Your task to perform on an android device: open sync settings in chrome Image 0: 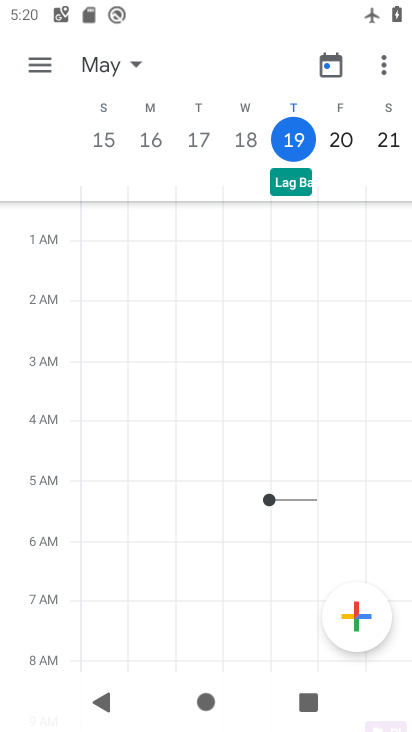
Step 0: press home button
Your task to perform on an android device: open sync settings in chrome Image 1: 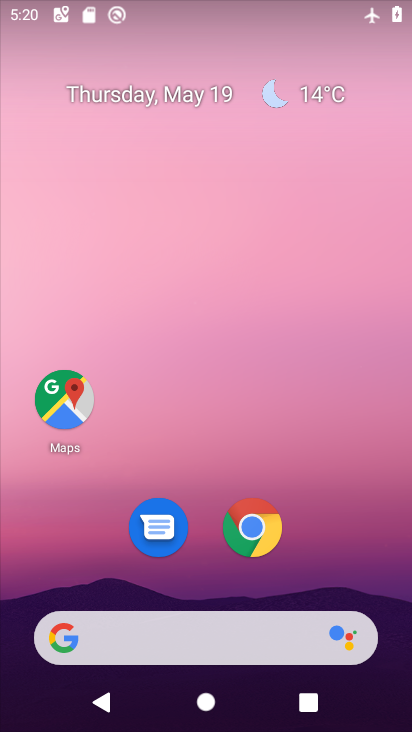
Step 1: drag from (322, 427) to (234, 62)
Your task to perform on an android device: open sync settings in chrome Image 2: 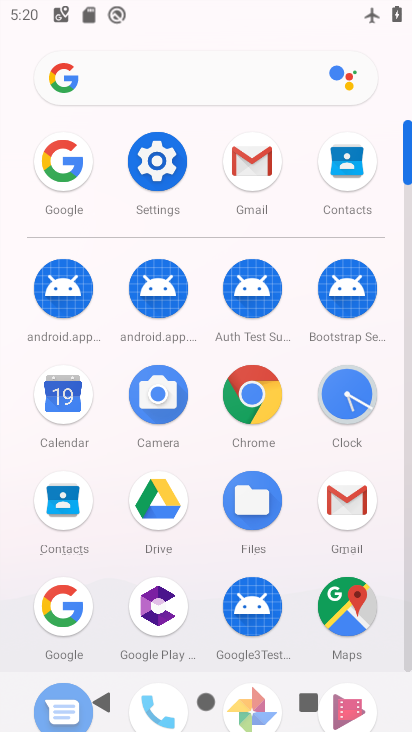
Step 2: click (251, 391)
Your task to perform on an android device: open sync settings in chrome Image 3: 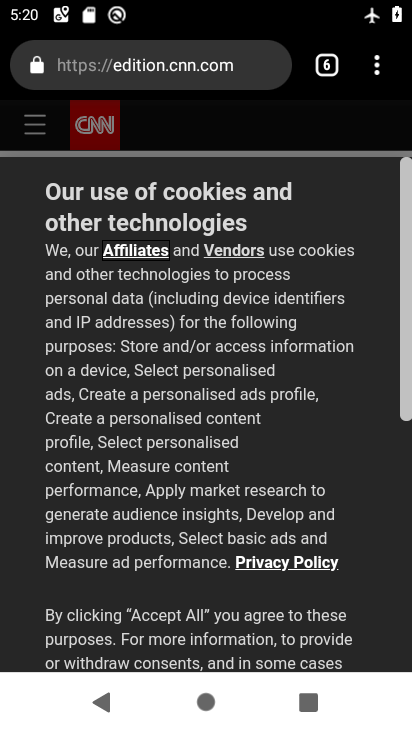
Step 3: click (382, 68)
Your task to perform on an android device: open sync settings in chrome Image 4: 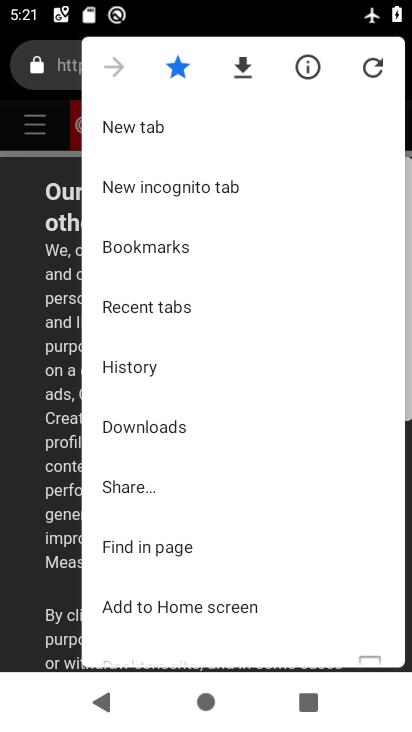
Step 4: drag from (260, 547) to (235, 114)
Your task to perform on an android device: open sync settings in chrome Image 5: 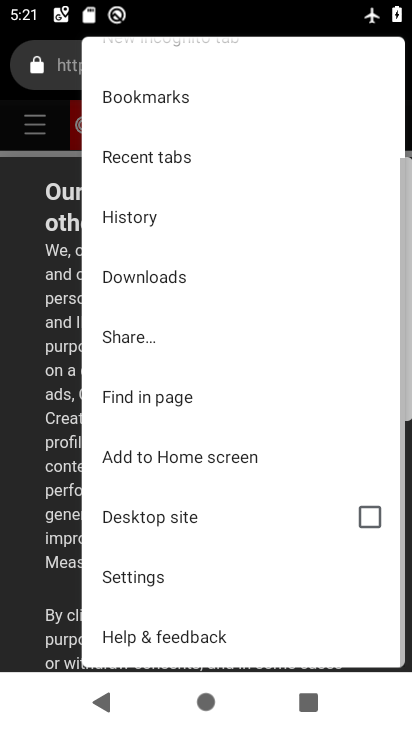
Step 5: click (215, 582)
Your task to perform on an android device: open sync settings in chrome Image 6: 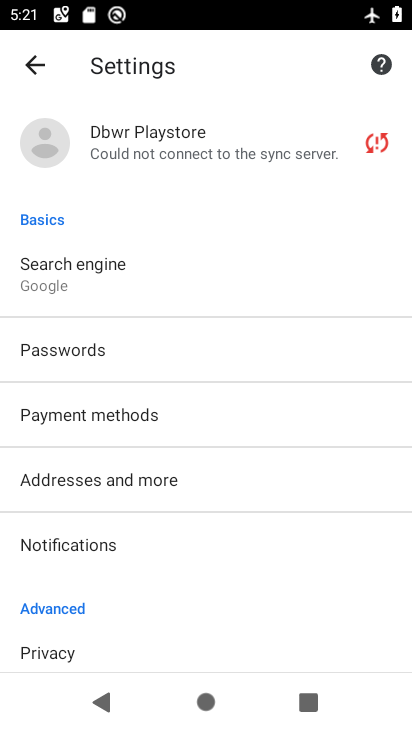
Step 6: drag from (218, 578) to (181, 129)
Your task to perform on an android device: open sync settings in chrome Image 7: 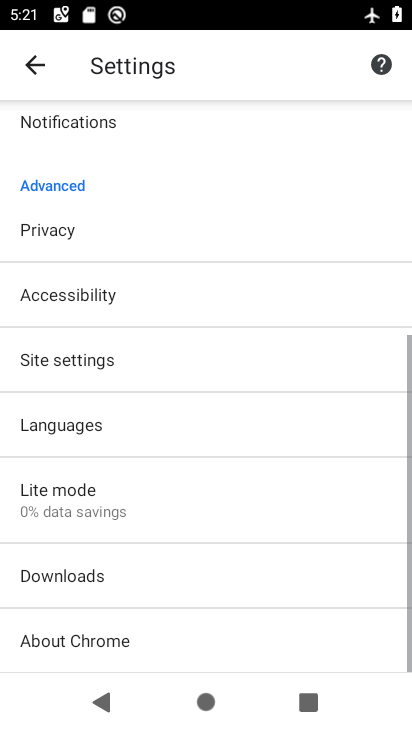
Step 7: drag from (189, 392) to (176, 274)
Your task to perform on an android device: open sync settings in chrome Image 8: 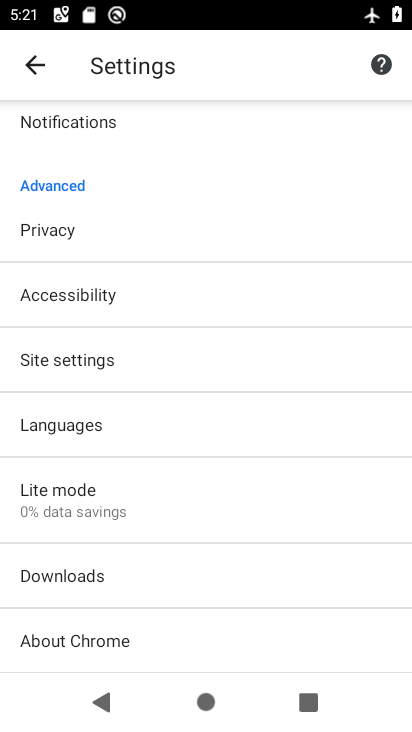
Step 8: click (83, 351)
Your task to perform on an android device: open sync settings in chrome Image 9: 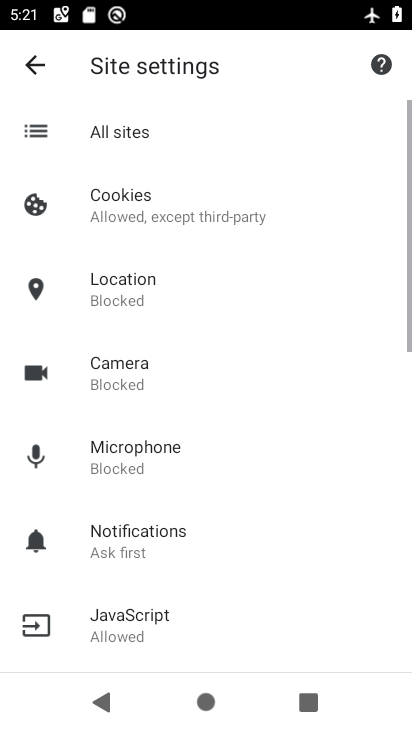
Step 9: drag from (206, 469) to (160, 103)
Your task to perform on an android device: open sync settings in chrome Image 10: 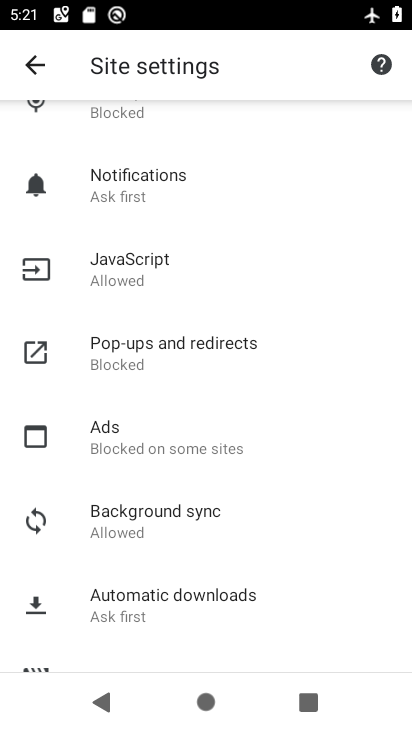
Step 10: click (215, 511)
Your task to perform on an android device: open sync settings in chrome Image 11: 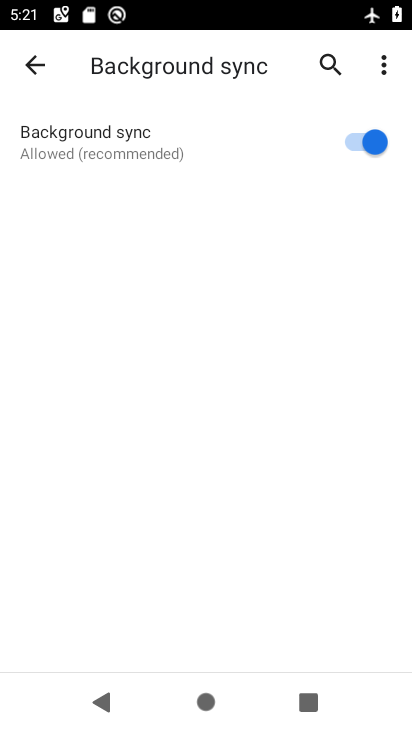
Step 11: task complete